Your task to perform on an android device: Go to calendar. Show me events next week Image 0: 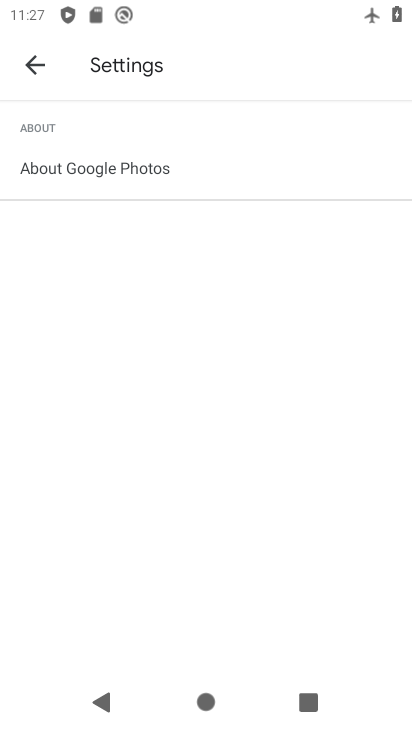
Step 0: press back button
Your task to perform on an android device: Go to calendar. Show me events next week Image 1: 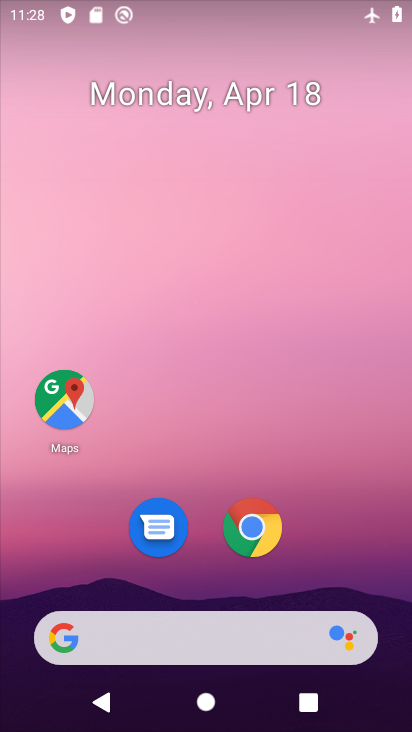
Step 1: drag from (318, 575) to (384, 39)
Your task to perform on an android device: Go to calendar. Show me events next week Image 2: 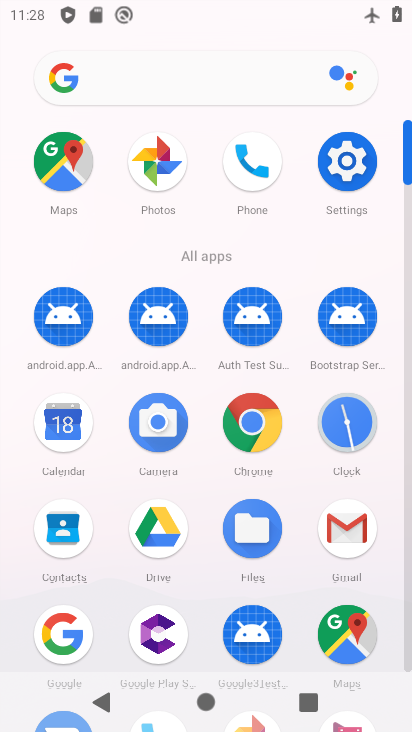
Step 2: click (58, 425)
Your task to perform on an android device: Go to calendar. Show me events next week Image 3: 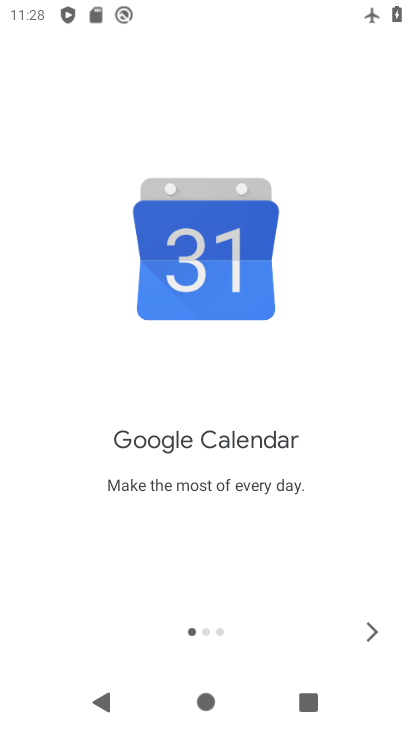
Step 3: click (371, 620)
Your task to perform on an android device: Go to calendar. Show me events next week Image 4: 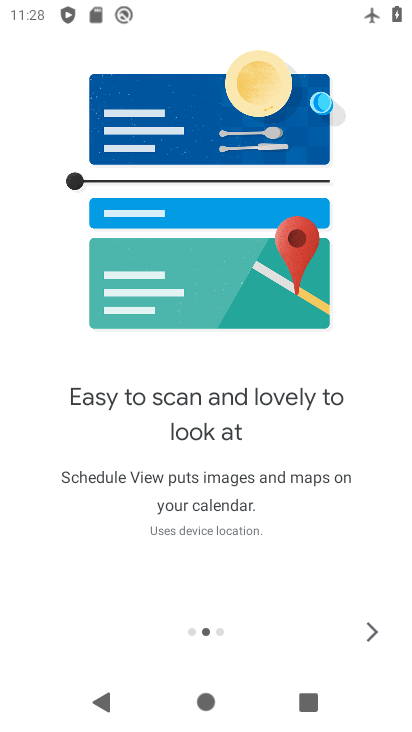
Step 4: click (353, 632)
Your task to perform on an android device: Go to calendar. Show me events next week Image 5: 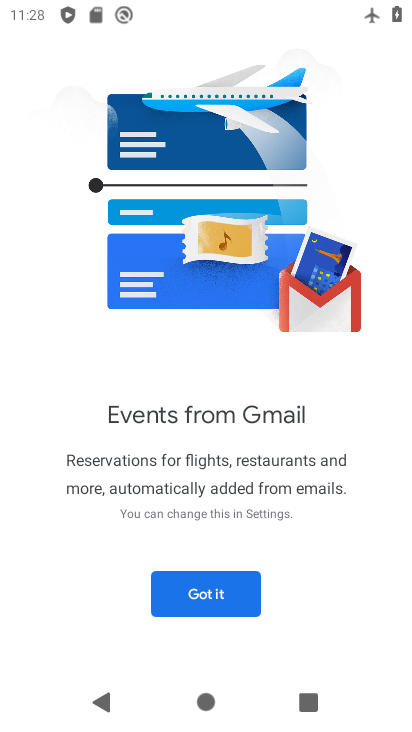
Step 5: click (231, 603)
Your task to perform on an android device: Go to calendar. Show me events next week Image 6: 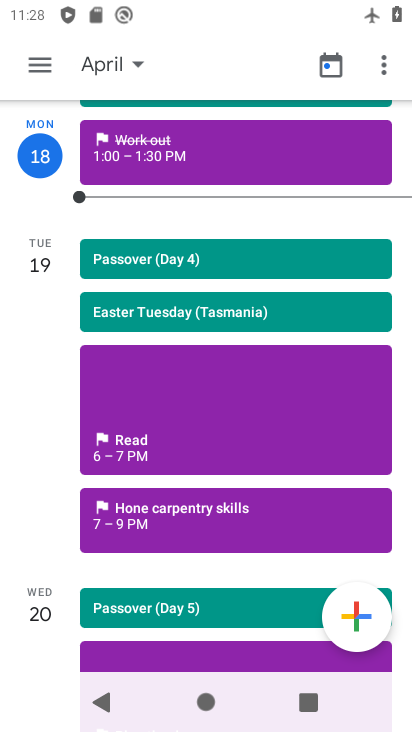
Step 6: click (137, 59)
Your task to perform on an android device: Go to calendar. Show me events next week Image 7: 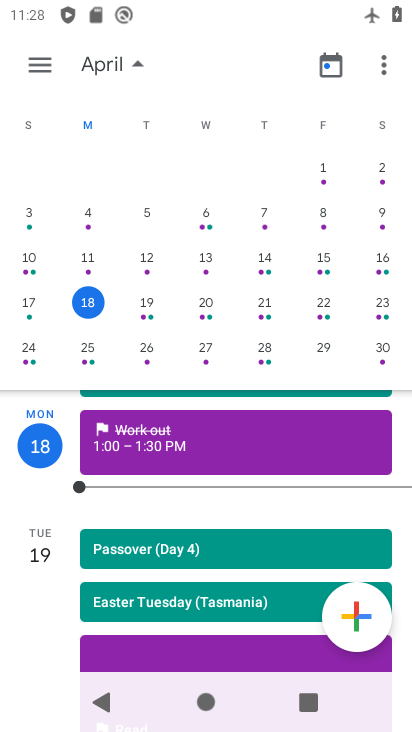
Step 7: click (37, 359)
Your task to perform on an android device: Go to calendar. Show me events next week Image 8: 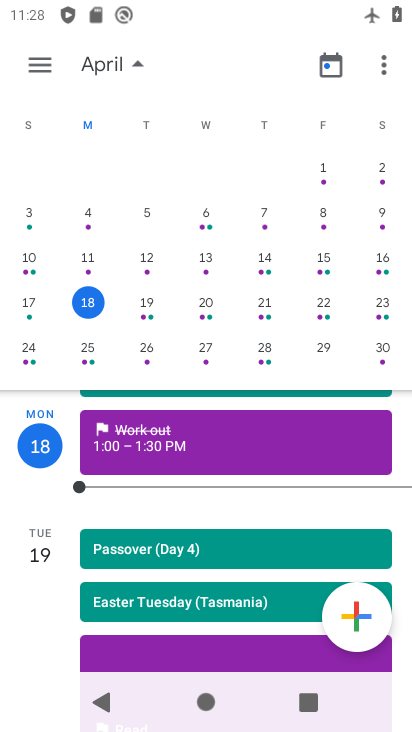
Step 8: click (46, 364)
Your task to perform on an android device: Go to calendar. Show me events next week Image 9: 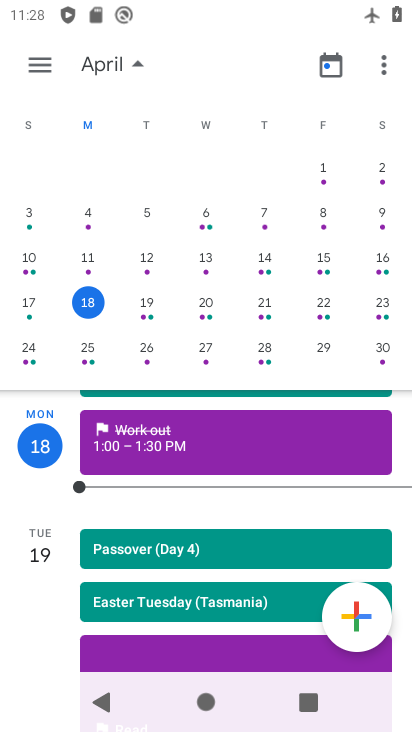
Step 9: click (39, 360)
Your task to perform on an android device: Go to calendar. Show me events next week Image 10: 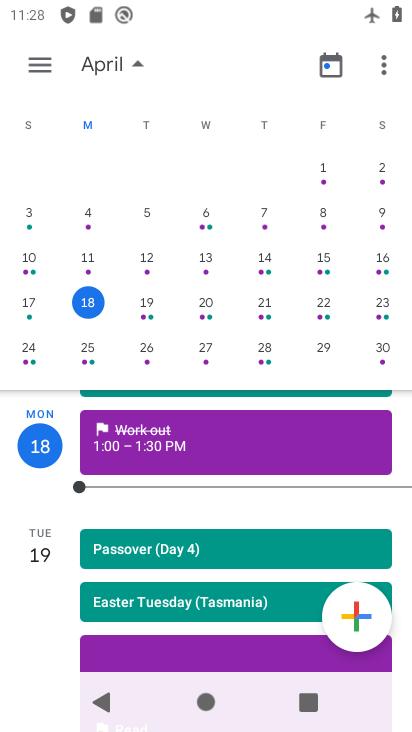
Step 10: click (27, 355)
Your task to perform on an android device: Go to calendar. Show me events next week Image 11: 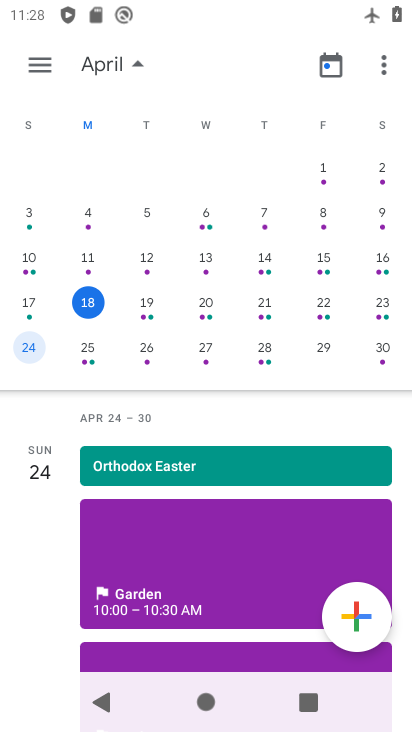
Step 11: click (85, 362)
Your task to perform on an android device: Go to calendar. Show me events next week Image 12: 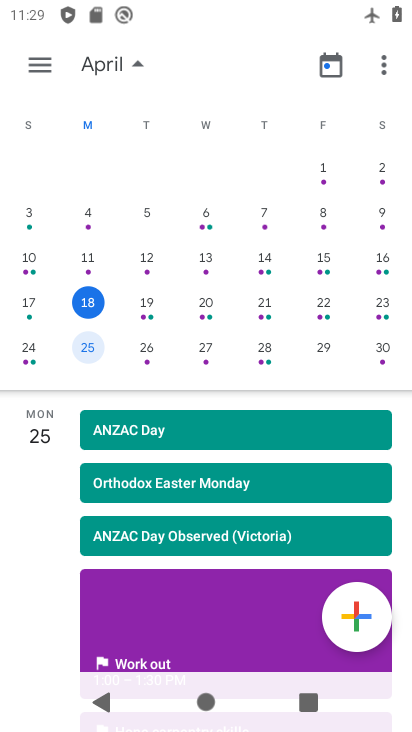
Step 12: click (152, 362)
Your task to perform on an android device: Go to calendar. Show me events next week Image 13: 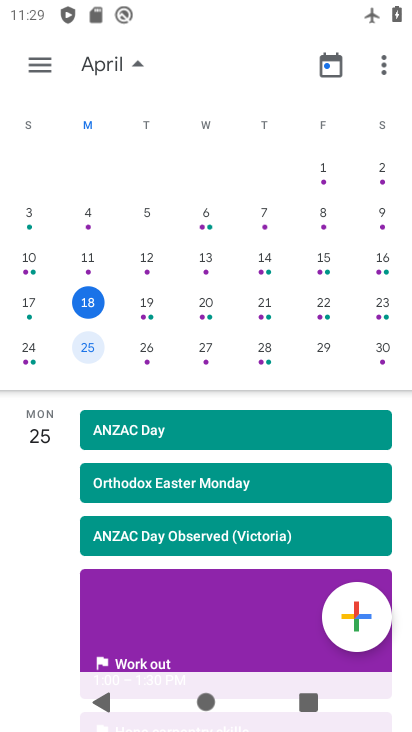
Step 13: click (143, 354)
Your task to perform on an android device: Go to calendar. Show me events next week Image 14: 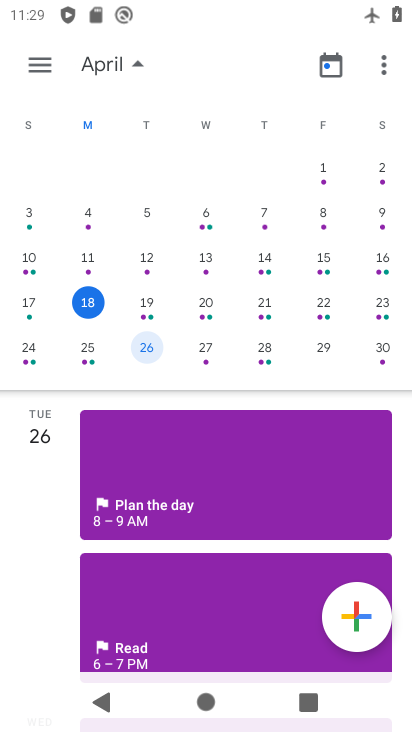
Step 14: click (213, 346)
Your task to perform on an android device: Go to calendar. Show me events next week Image 15: 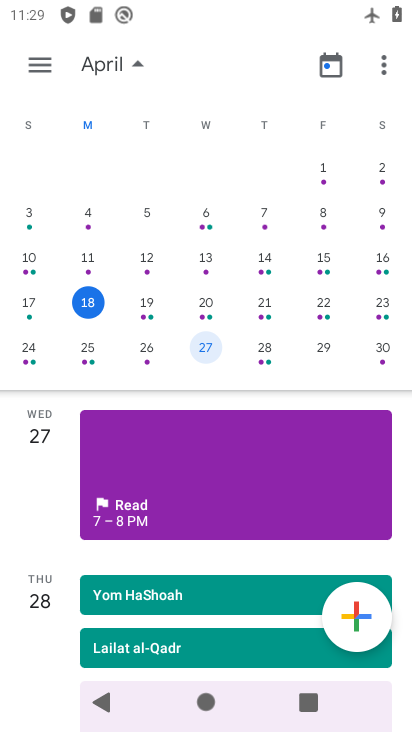
Step 15: click (254, 352)
Your task to perform on an android device: Go to calendar. Show me events next week Image 16: 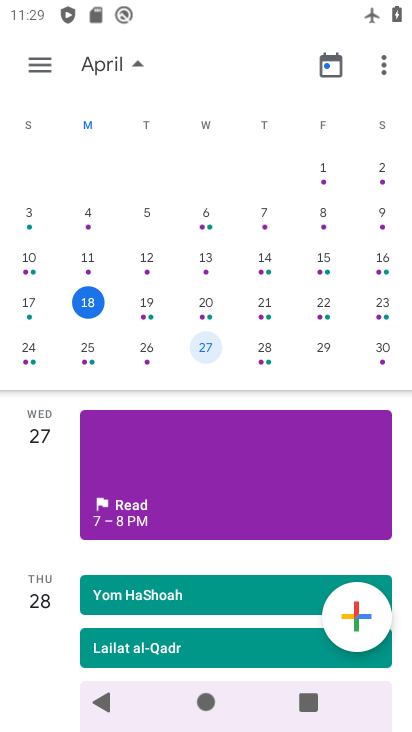
Step 16: click (276, 358)
Your task to perform on an android device: Go to calendar. Show me events next week Image 17: 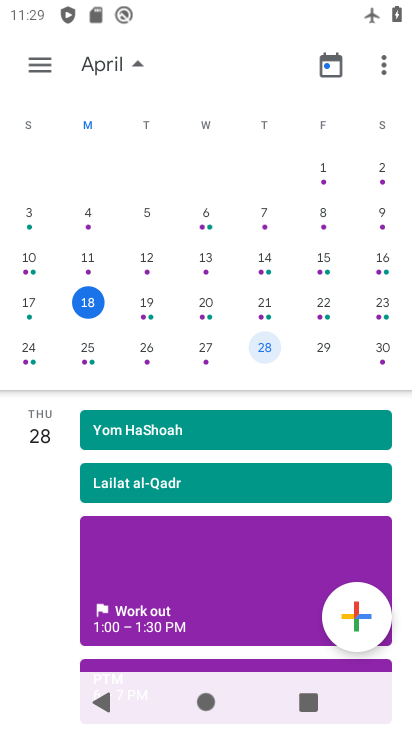
Step 17: click (379, 356)
Your task to perform on an android device: Go to calendar. Show me events next week Image 18: 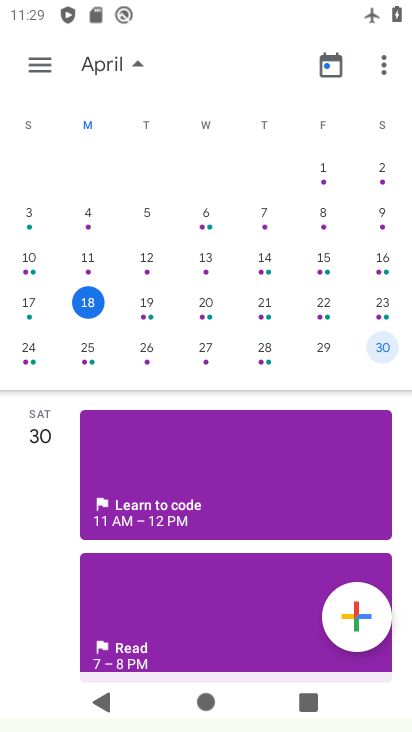
Step 18: task complete